Your task to perform on an android device: check google app version Image 0: 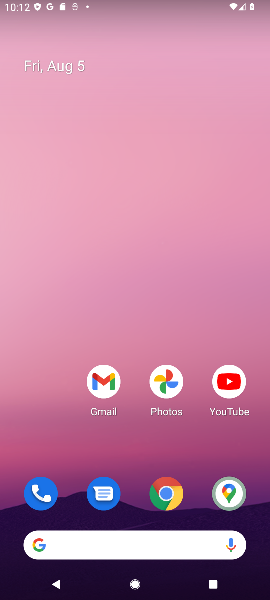
Step 0: press home button
Your task to perform on an android device: check google app version Image 1: 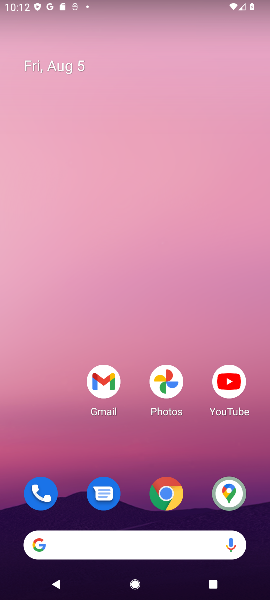
Step 1: drag from (128, 468) to (143, 60)
Your task to perform on an android device: check google app version Image 2: 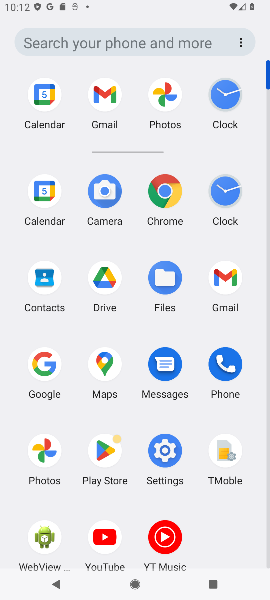
Step 2: click (41, 358)
Your task to perform on an android device: check google app version Image 3: 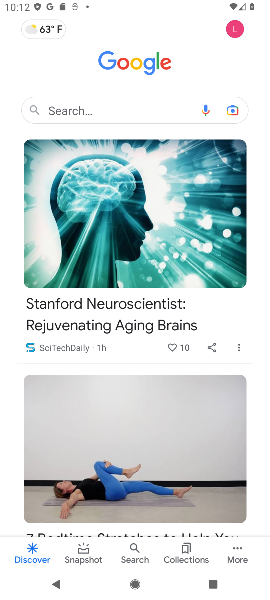
Step 3: click (239, 549)
Your task to perform on an android device: check google app version Image 4: 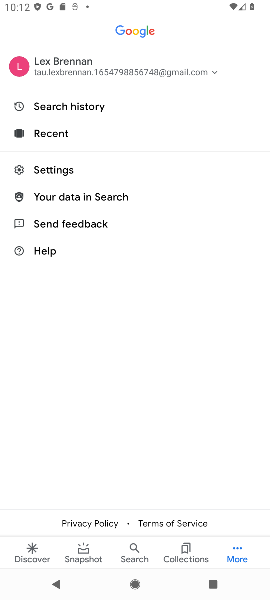
Step 4: click (82, 162)
Your task to perform on an android device: check google app version Image 5: 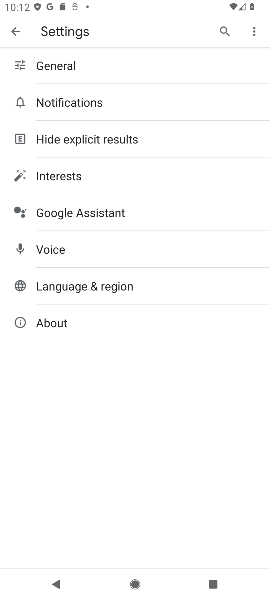
Step 5: click (70, 319)
Your task to perform on an android device: check google app version Image 6: 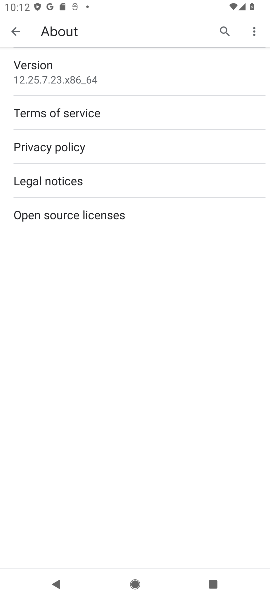
Step 6: task complete